Your task to perform on an android device: delete a single message in the gmail app Image 0: 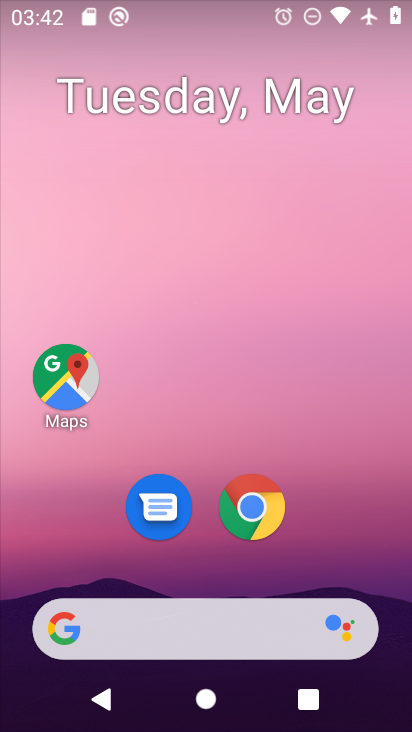
Step 0: drag from (220, 547) to (225, 161)
Your task to perform on an android device: delete a single message in the gmail app Image 1: 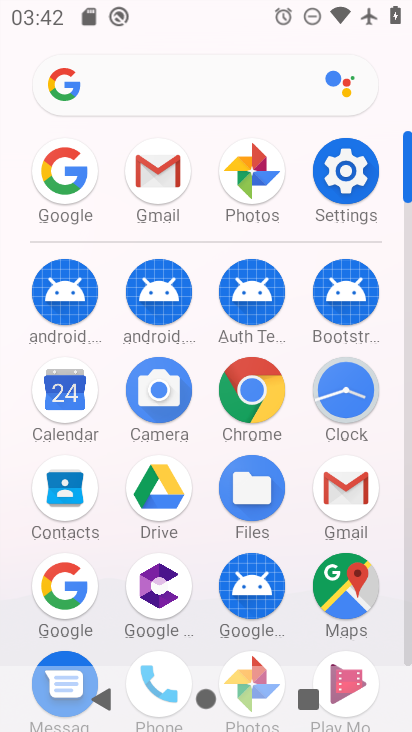
Step 1: click (158, 183)
Your task to perform on an android device: delete a single message in the gmail app Image 2: 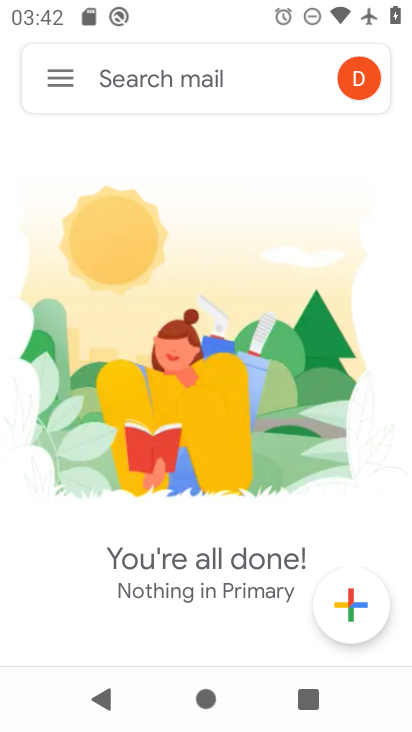
Step 2: click (53, 92)
Your task to perform on an android device: delete a single message in the gmail app Image 3: 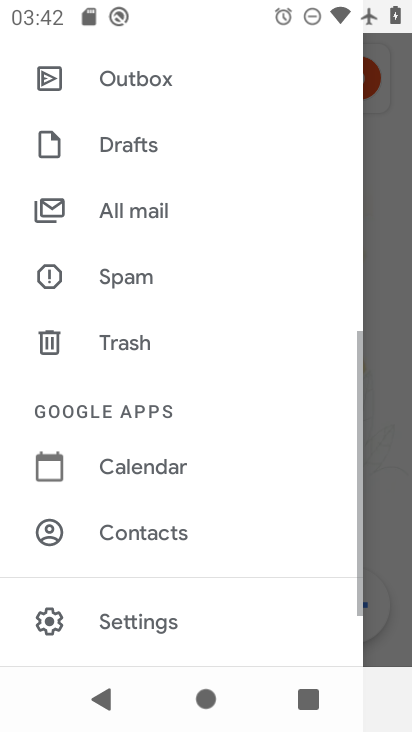
Step 3: drag from (140, 204) to (160, 383)
Your task to perform on an android device: delete a single message in the gmail app Image 4: 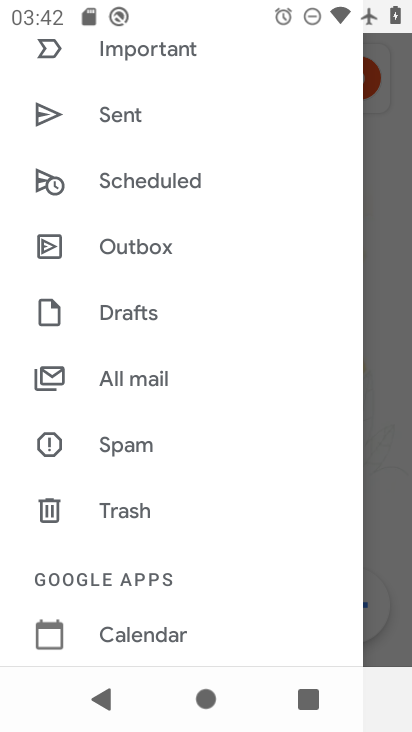
Step 4: click (160, 383)
Your task to perform on an android device: delete a single message in the gmail app Image 5: 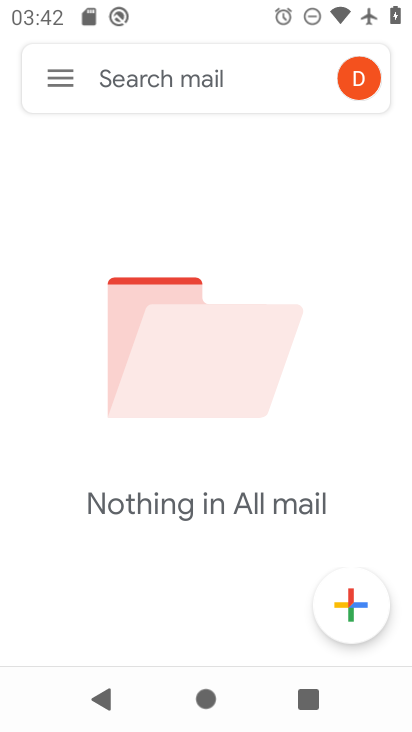
Step 5: task complete